Your task to perform on an android device: open sync settings in chrome Image 0: 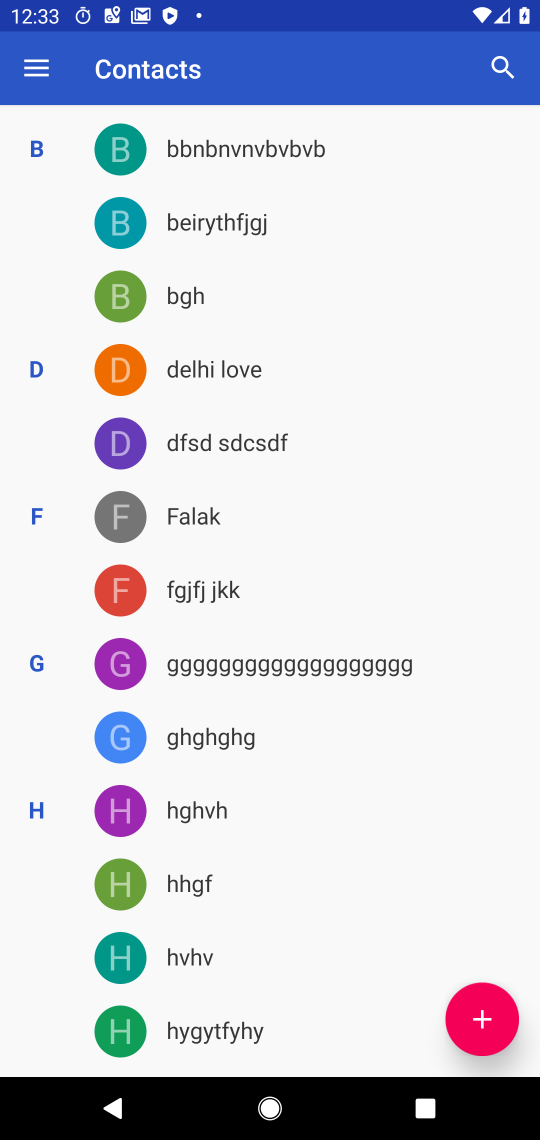
Step 0: press home button
Your task to perform on an android device: open sync settings in chrome Image 1: 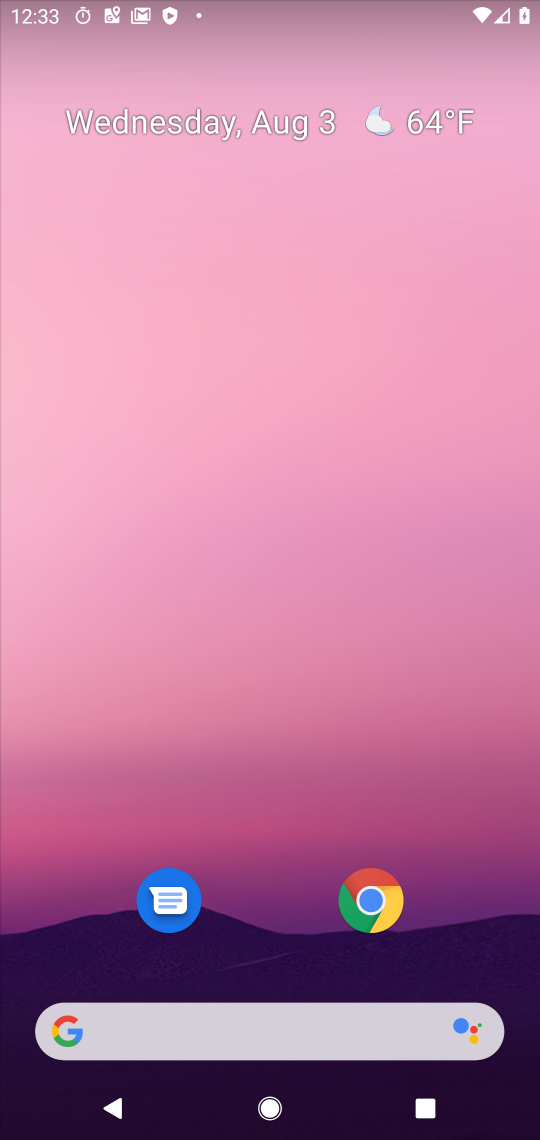
Step 1: drag from (286, 651) to (323, 181)
Your task to perform on an android device: open sync settings in chrome Image 2: 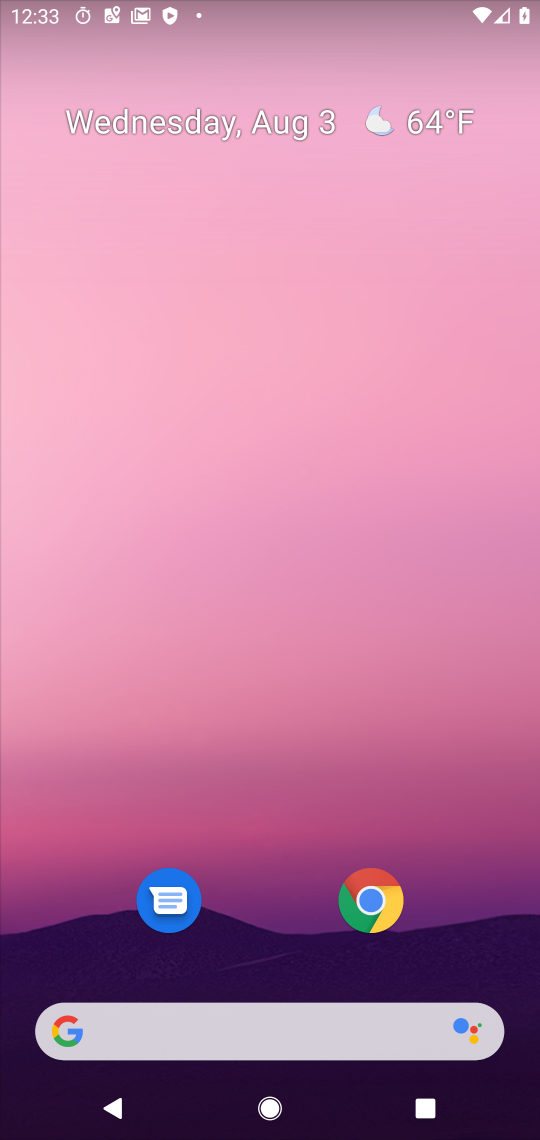
Step 2: drag from (246, 827) to (262, 108)
Your task to perform on an android device: open sync settings in chrome Image 3: 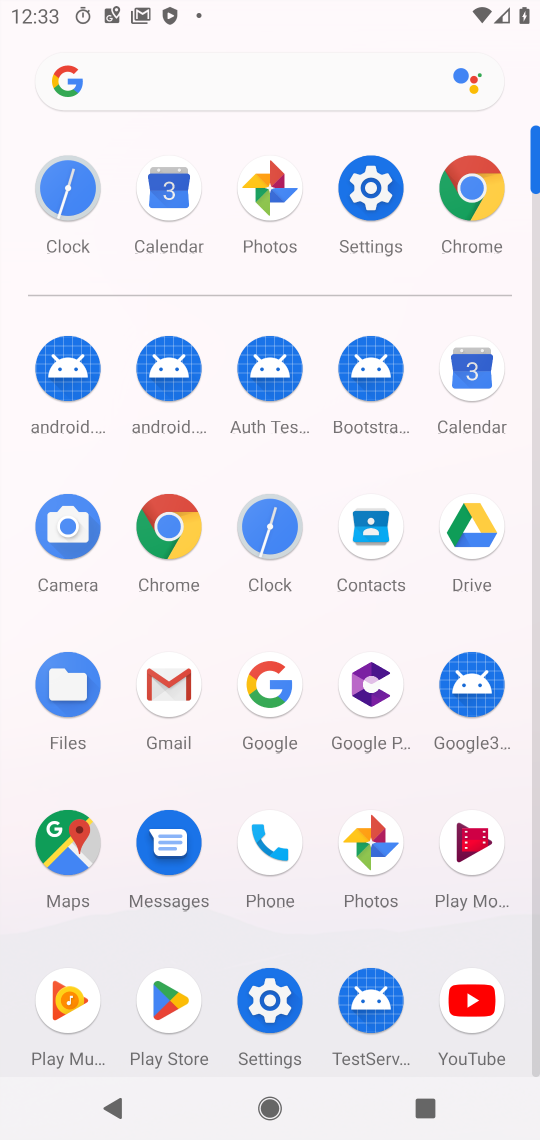
Step 3: click (165, 528)
Your task to perform on an android device: open sync settings in chrome Image 4: 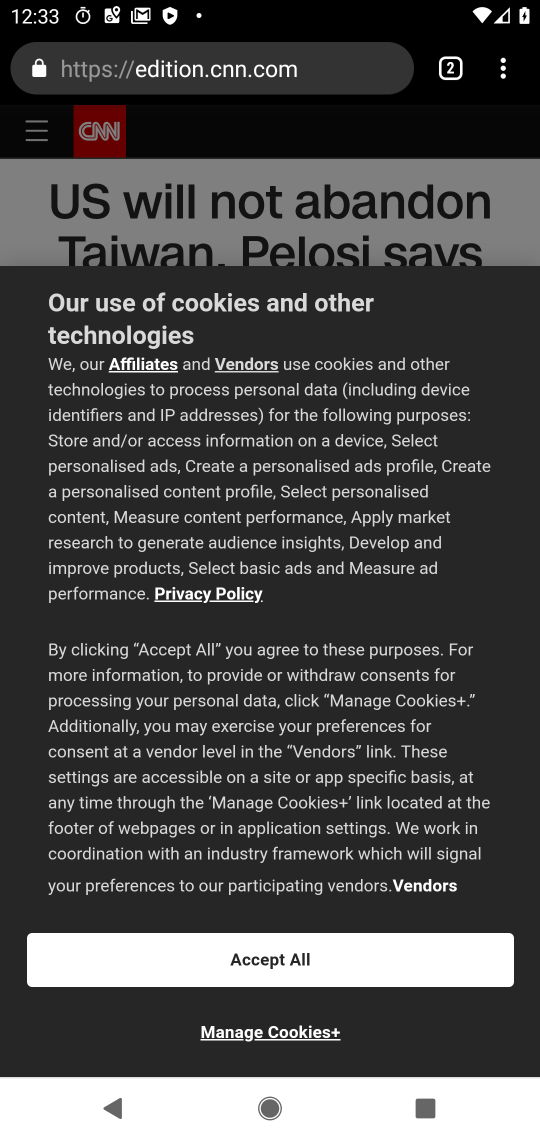
Step 4: drag from (499, 64) to (297, 839)
Your task to perform on an android device: open sync settings in chrome Image 5: 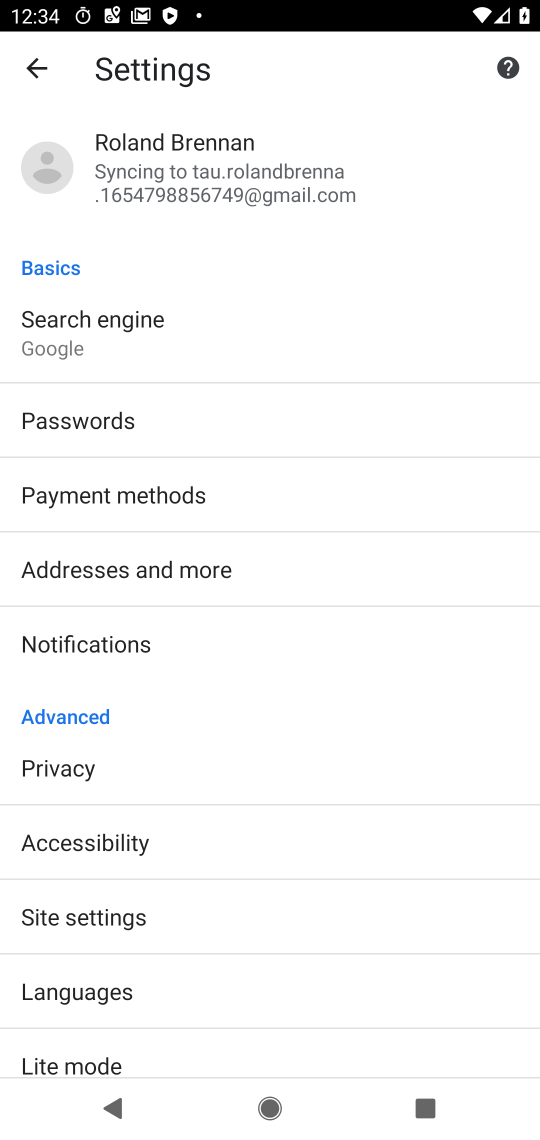
Step 5: click (265, 168)
Your task to perform on an android device: open sync settings in chrome Image 6: 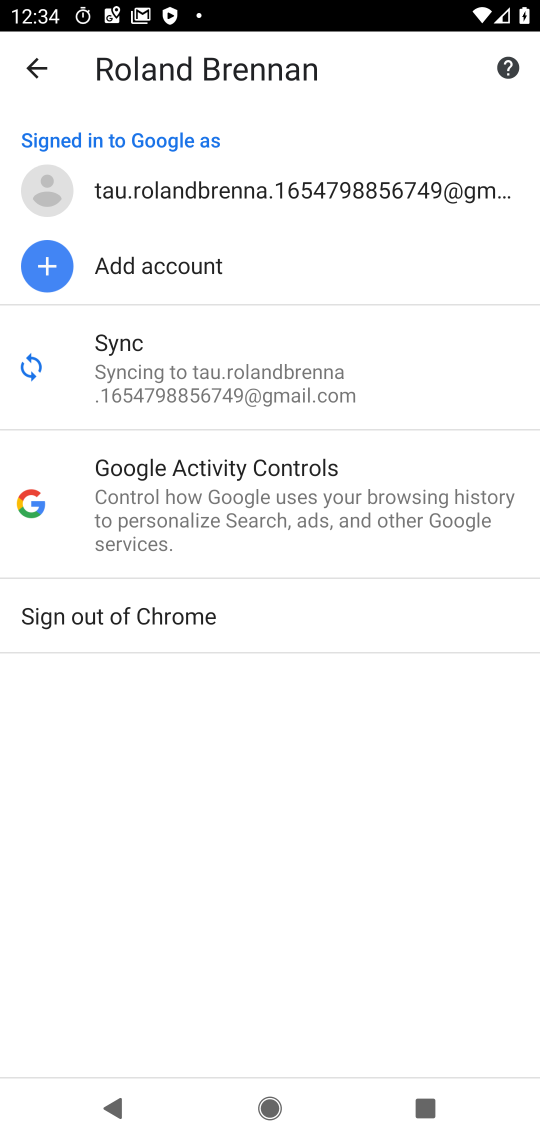
Step 6: click (258, 380)
Your task to perform on an android device: open sync settings in chrome Image 7: 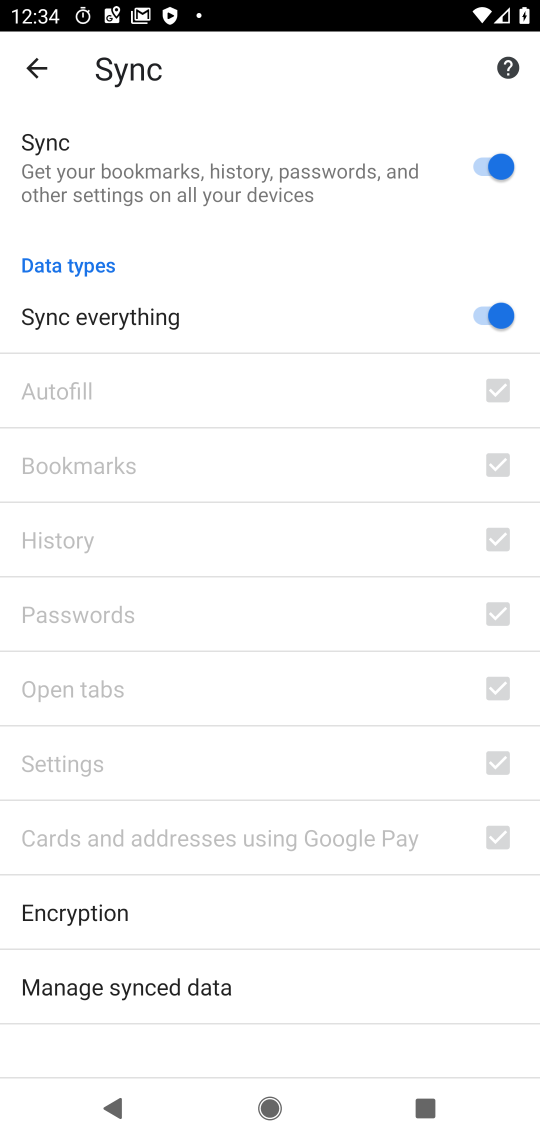
Step 7: task complete